Your task to perform on an android device: Open wifi settings Image 0: 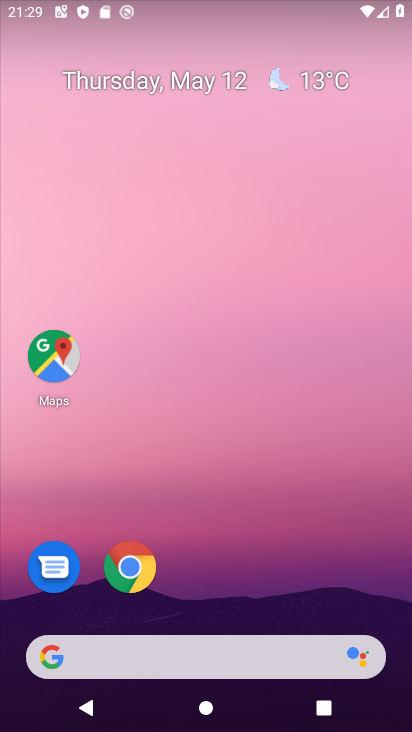
Step 0: press home button
Your task to perform on an android device: Open wifi settings Image 1: 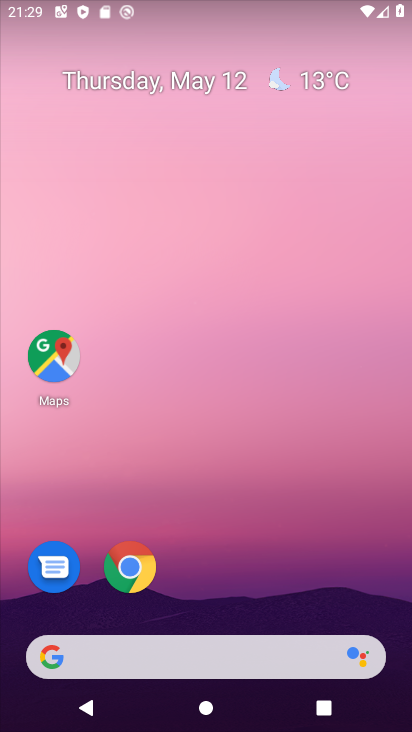
Step 1: drag from (219, 617) to (230, 80)
Your task to perform on an android device: Open wifi settings Image 2: 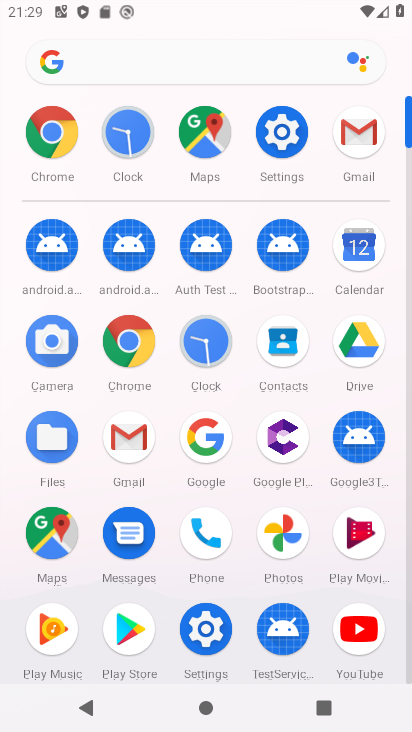
Step 2: click (278, 129)
Your task to perform on an android device: Open wifi settings Image 3: 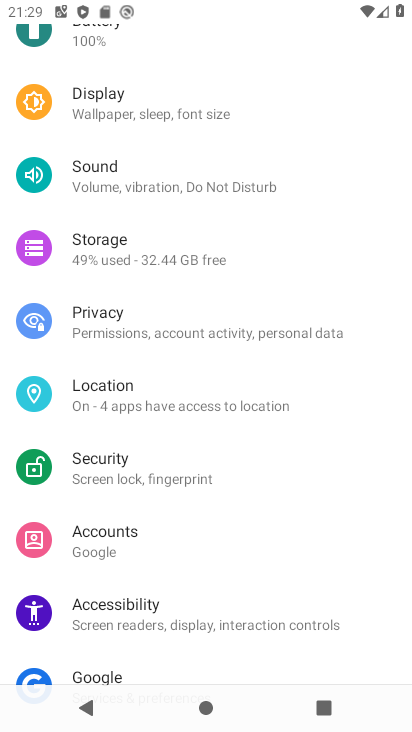
Step 3: drag from (130, 125) to (151, 604)
Your task to perform on an android device: Open wifi settings Image 4: 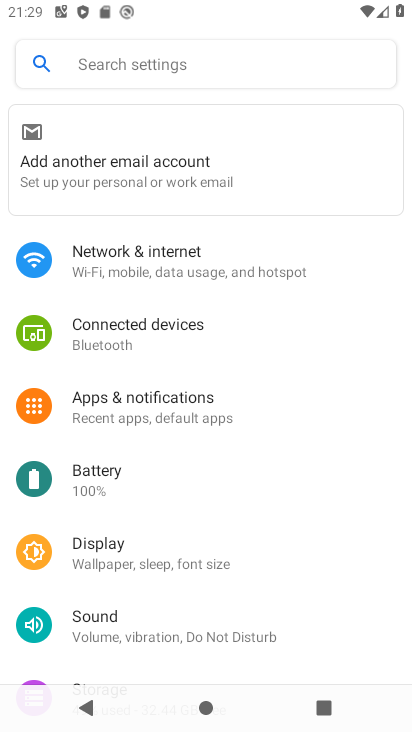
Step 4: click (140, 265)
Your task to perform on an android device: Open wifi settings Image 5: 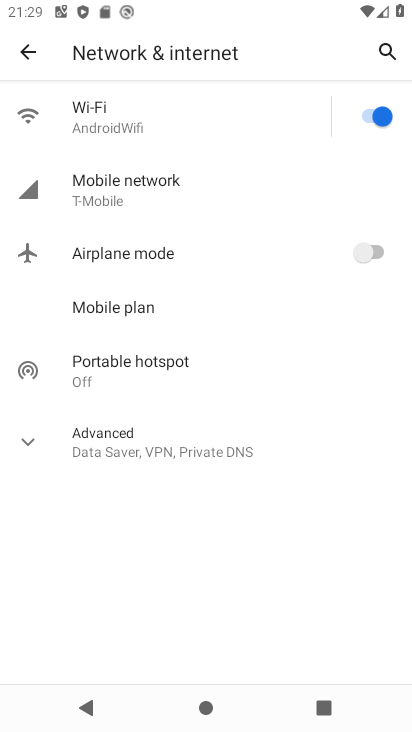
Step 5: click (170, 105)
Your task to perform on an android device: Open wifi settings Image 6: 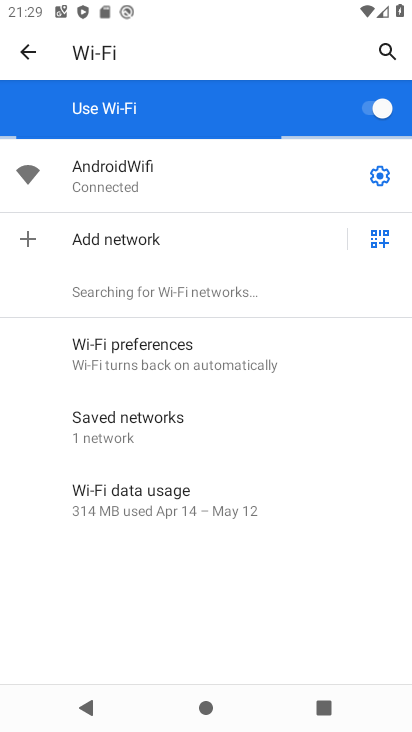
Step 6: task complete